Your task to perform on an android device: Open Google Chrome and open the bookmarks view Image 0: 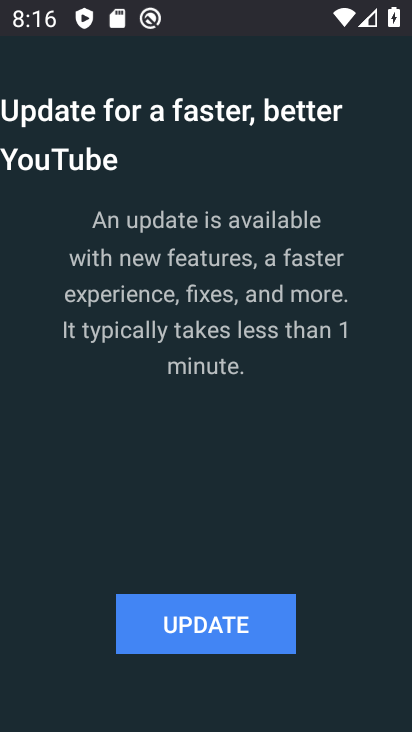
Step 0: press home button
Your task to perform on an android device: Open Google Chrome and open the bookmarks view Image 1: 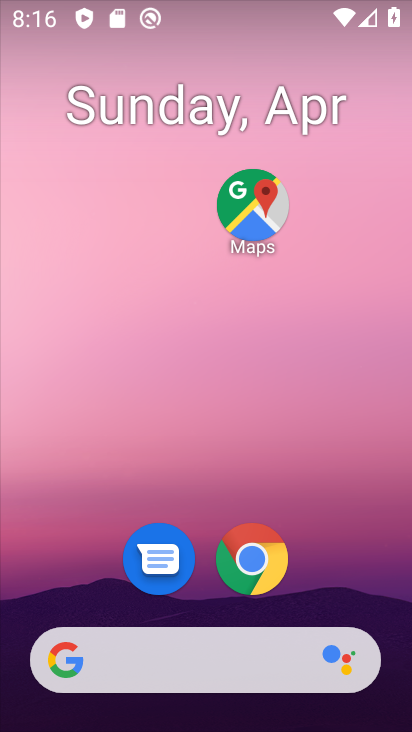
Step 1: click (252, 528)
Your task to perform on an android device: Open Google Chrome and open the bookmarks view Image 2: 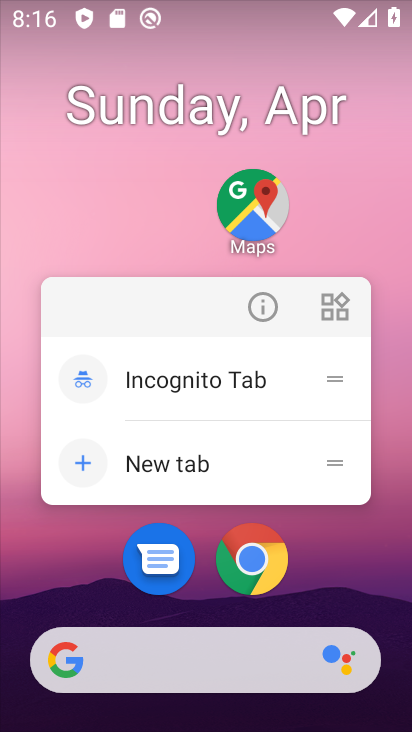
Step 2: click (257, 314)
Your task to perform on an android device: Open Google Chrome and open the bookmarks view Image 3: 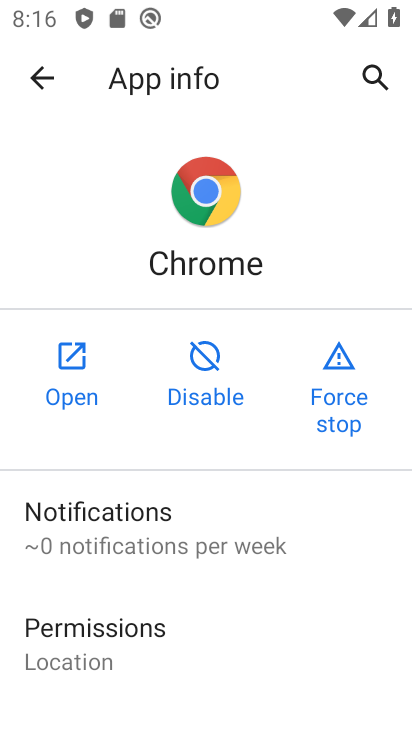
Step 3: click (62, 357)
Your task to perform on an android device: Open Google Chrome and open the bookmarks view Image 4: 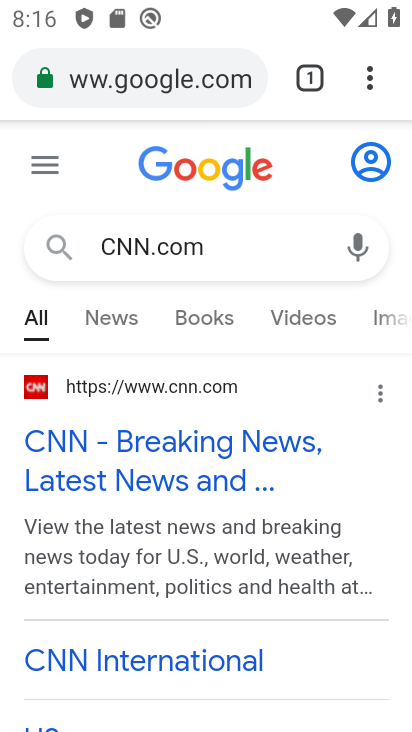
Step 4: click (368, 83)
Your task to perform on an android device: Open Google Chrome and open the bookmarks view Image 5: 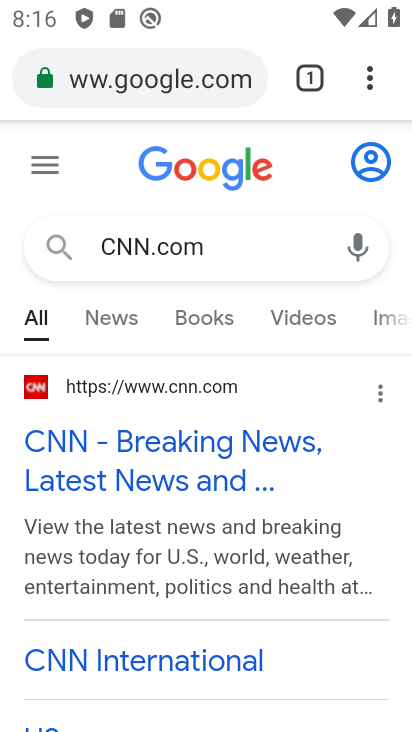
Step 5: click (378, 81)
Your task to perform on an android device: Open Google Chrome and open the bookmarks view Image 6: 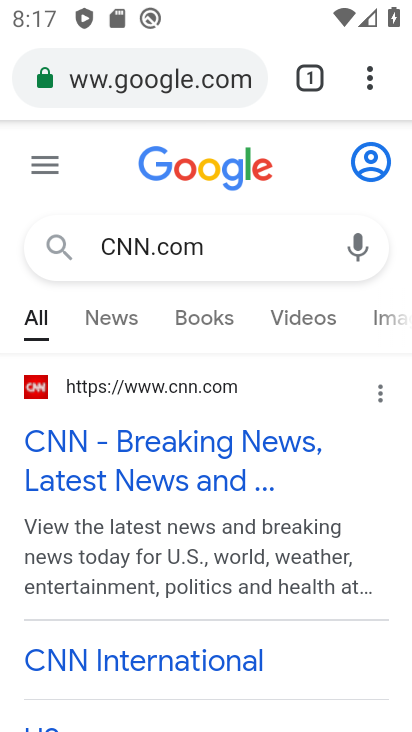
Step 6: click (378, 81)
Your task to perform on an android device: Open Google Chrome and open the bookmarks view Image 7: 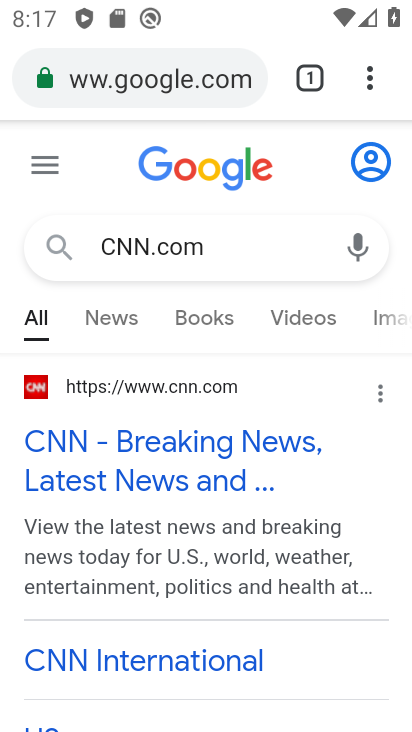
Step 7: click (362, 64)
Your task to perform on an android device: Open Google Chrome and open the bookmarks view Image 8: 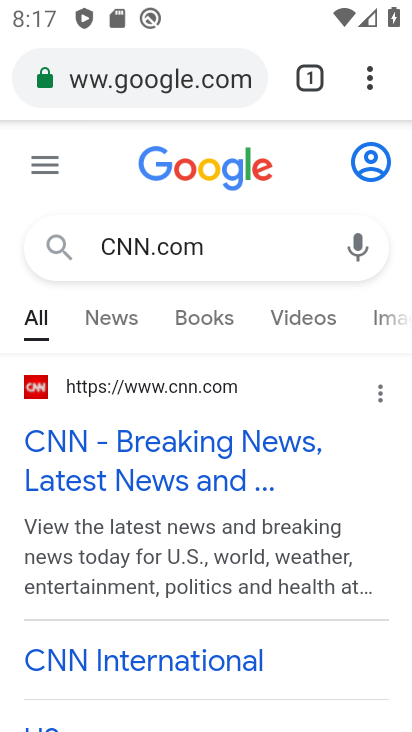
Step 8: click (378, 81)
Your task to perform on an android device: Open Google Chrome and open the bookmarks view Image 9: 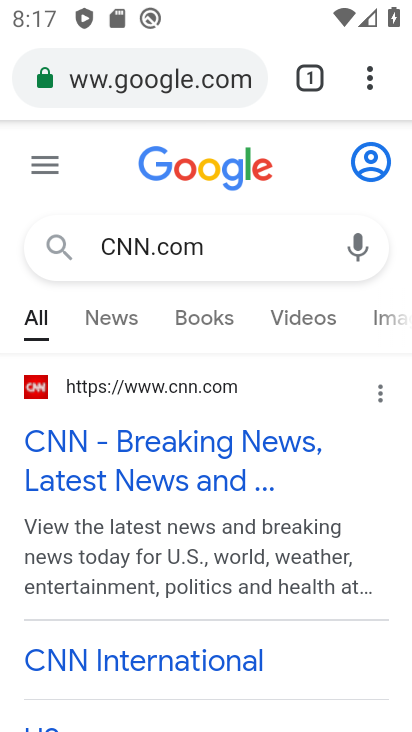
Step 9: click (358, 71)
Your task to perform on an android device: Open Google Chrome and open the bookmarks view Image 10: 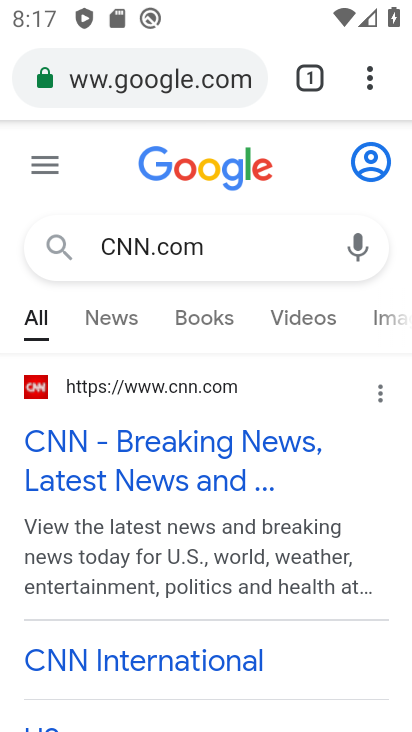
Step 10: click (358, 71)
Your task to perform on an android device: Open Google Chrome and open the bookmarks view Image 11: 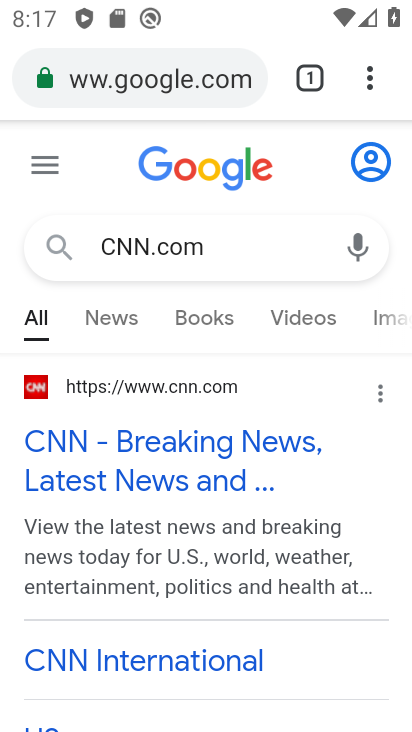
Step 11: click (358, 71)
Your task to perform on an android device: Open Google Chrome and open the bookmarks view Image 12: 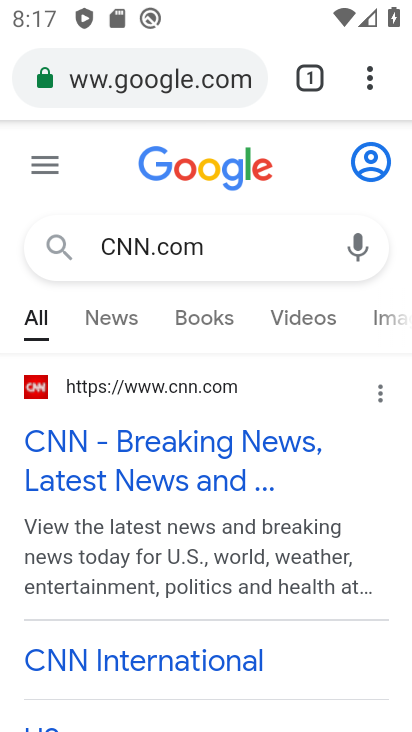
Step 12: click (358, 71)
Your task to perform on an android device: Open Google Chrome and open the bookmarks view Image 13: 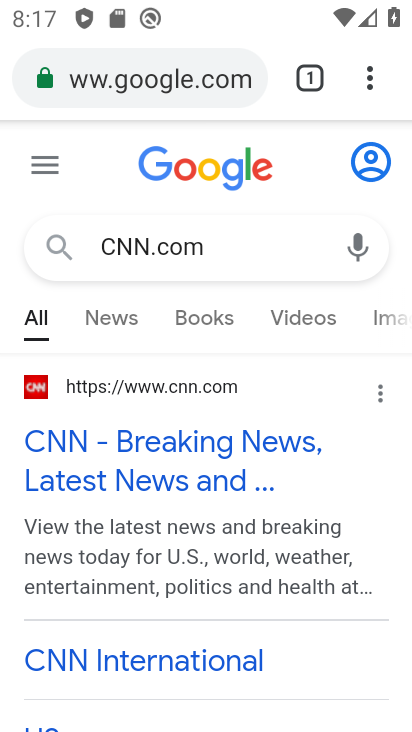
Step 13: click (360, 65)
Your task to perform on an android device: Open Google Chrome and open the bookmarks view Image 14: 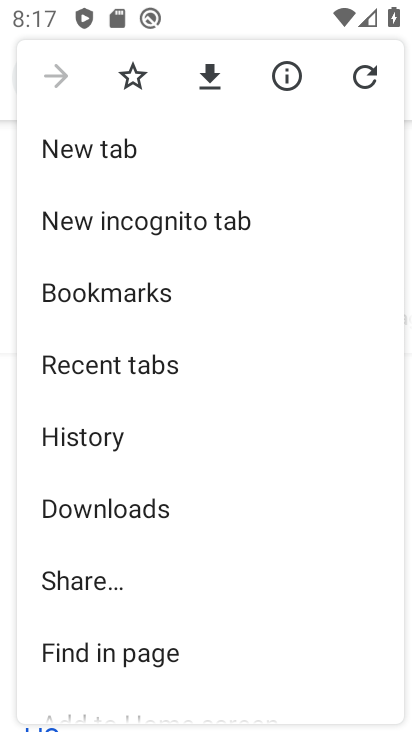
Step 14: drag from (144, 714) to (303, 297)
Your task to perform on an android device: Open Google Chrome and open the bookmarks view Image 15: 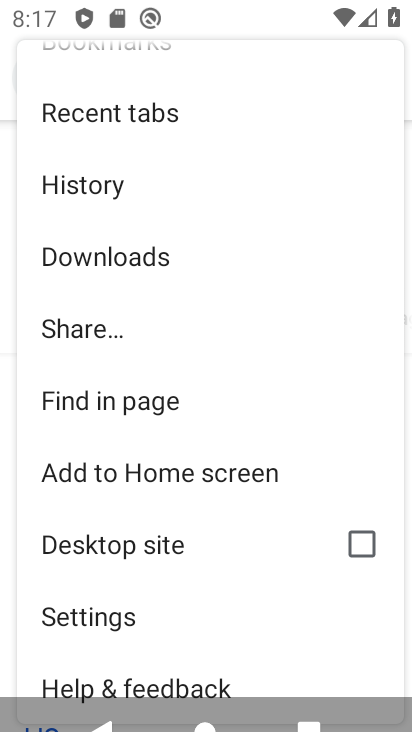
Step 15: drag from (189, 109) to (78, 525)
Your task to perform on an android device: Open Google Chrome and open the bookmarks view Image 16: 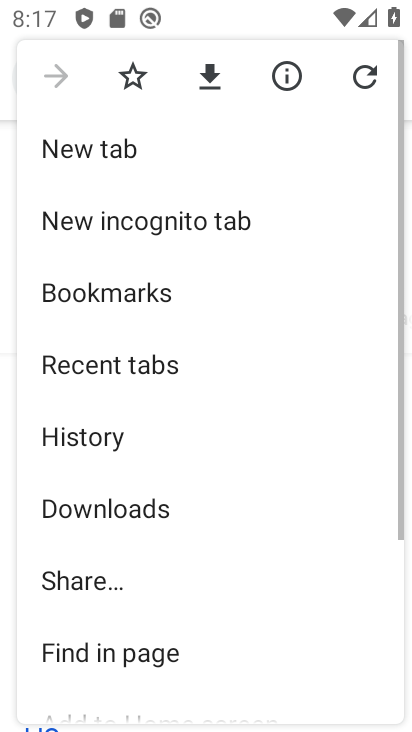
Step 16: click (111, 293)
Your task to perform on an android device: Open Google Chrome and open the bookmarks view Image 17: 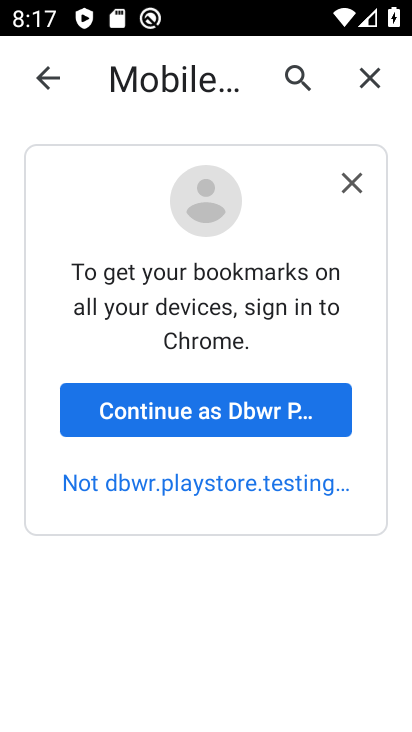
Step 17: click (352, 183)
Your task to perform on an android device: Open Google Chrome and open the bookmarks view Image 18: 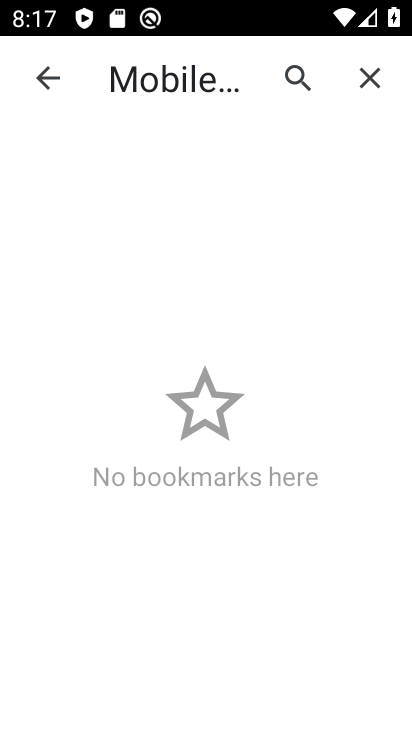
Step 18: task complete